Your task to perform on an android device: all mails in gmail Image 0: 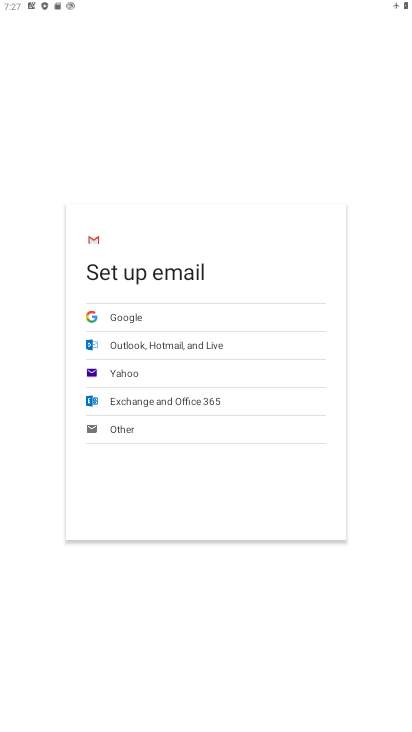
Step 0: press home button
Your task to perform on an android device: all mails in gmail Image 1: 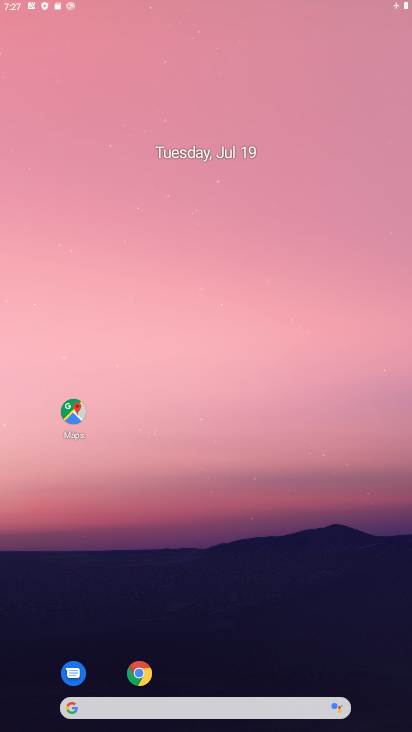
Step 1: drag from (383, 696) to (206, 18)
Your task to perform on an android device: all mails in gmail Image 2: 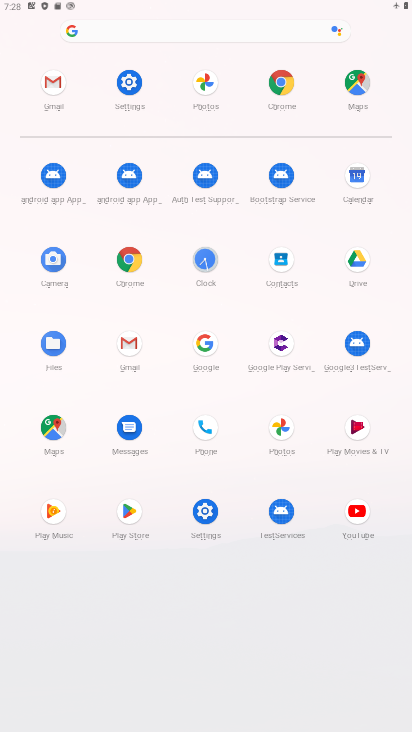
Step 2: click (126, 349)
Your task to perform on an android device: all mails in gmail Image 3: 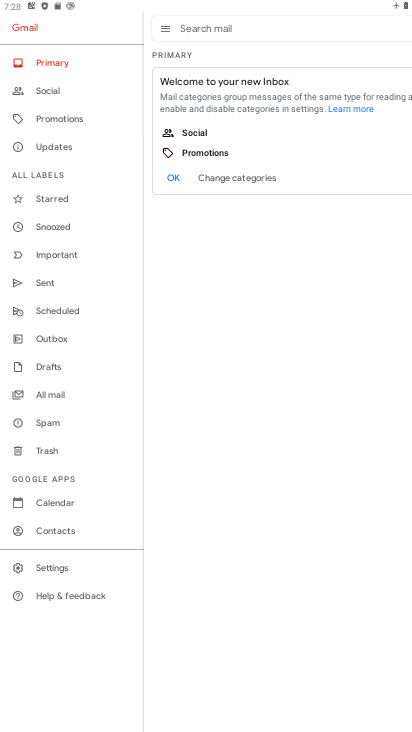
Step 3: click (57, 404)
Your task to perform on an android device: all mails in gmail Image 4: 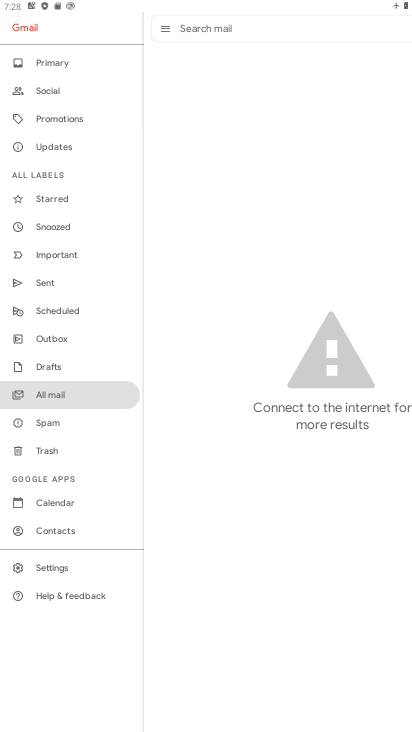
Step 4: task complete